Your task to perform on an android device: Open network settings Image 0: 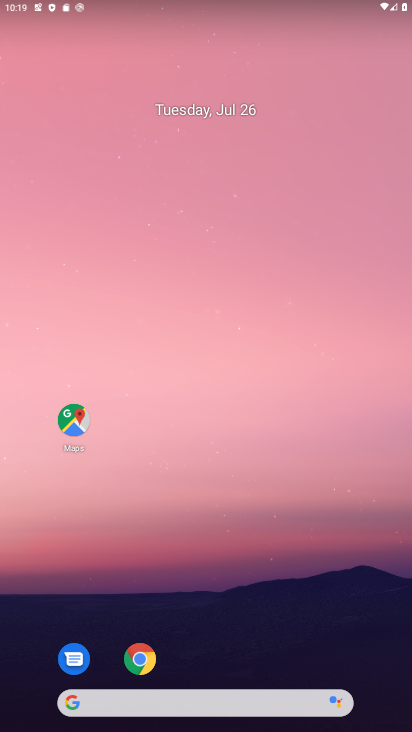
Step 0: press home button
Your task to perform on an android device: Open network settings Image 1: 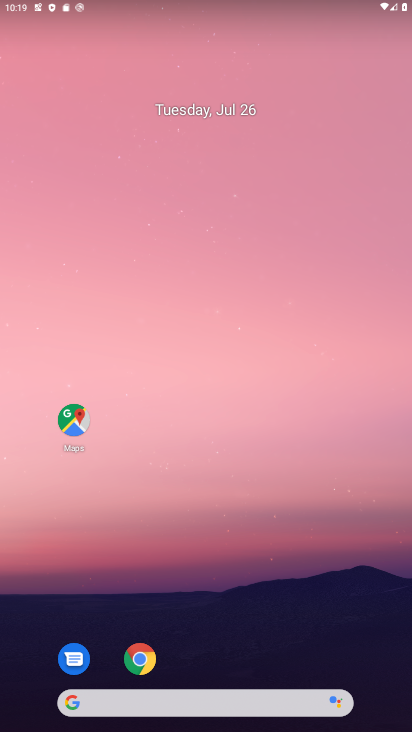
Step 1: drag from (329, 625) to (343, 201)
Your task to perform on an android device: Open network settings Image 2: 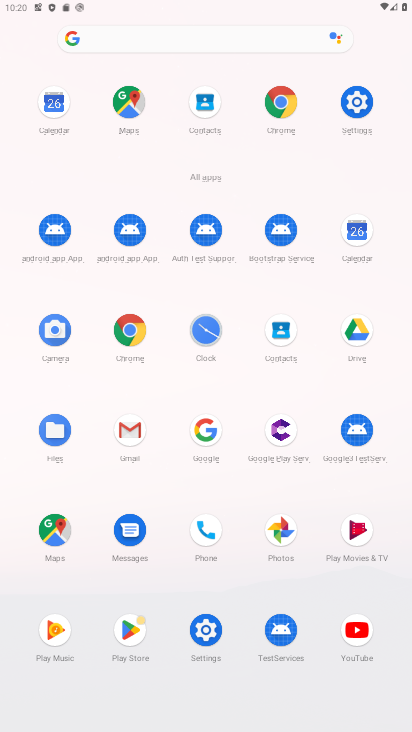
Step 2: click (214, 624)
Your task to perform on an android device: Open network settings Image 3: 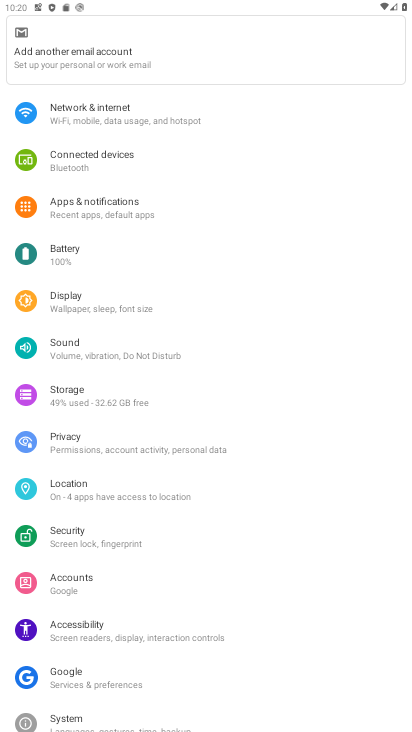
Step 3: click (91, 120)
Your task to perform on an android device: Open network settings Image 4: 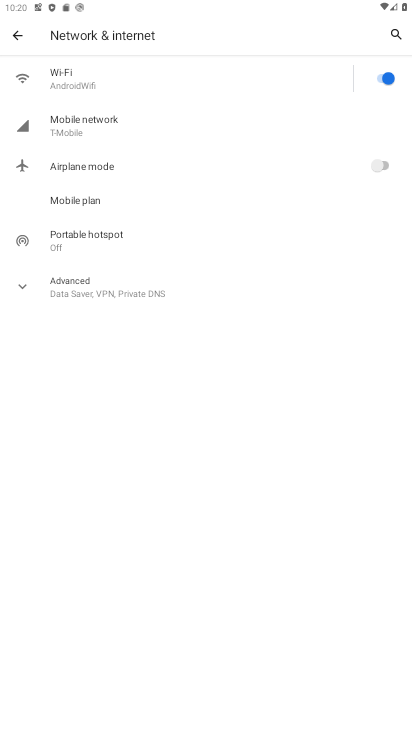
Step 4: task complete